Your task to perform on an android device: Go to CNN.com Image 0: 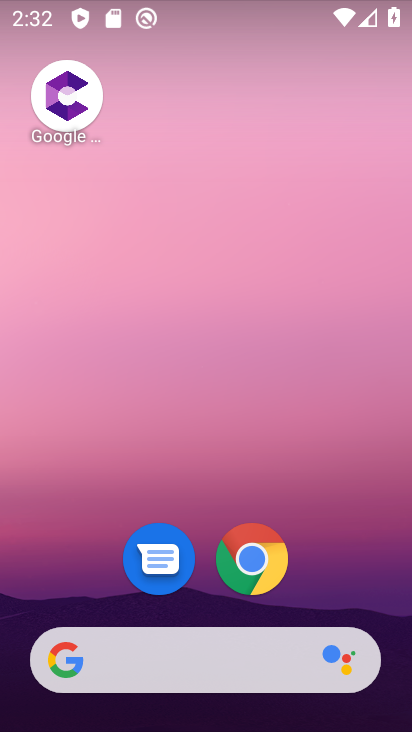
Step 0: click (254, 567)
Your task to perform on an android device: Go to CNN.com Image 1: 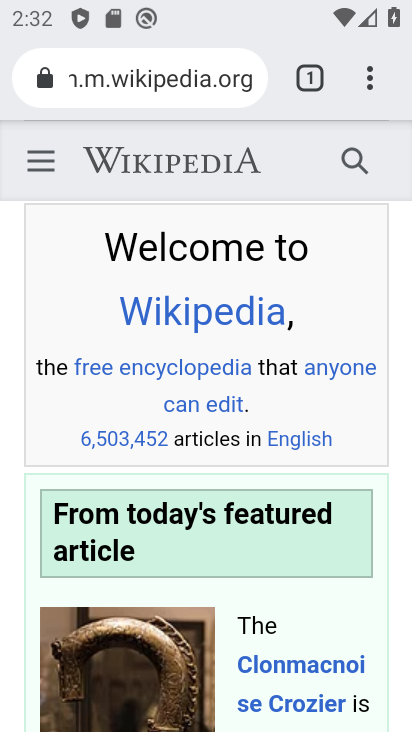
Step 1: click (369, 87)
Your task to perform on an android device: Go to CNN.com Image 2: 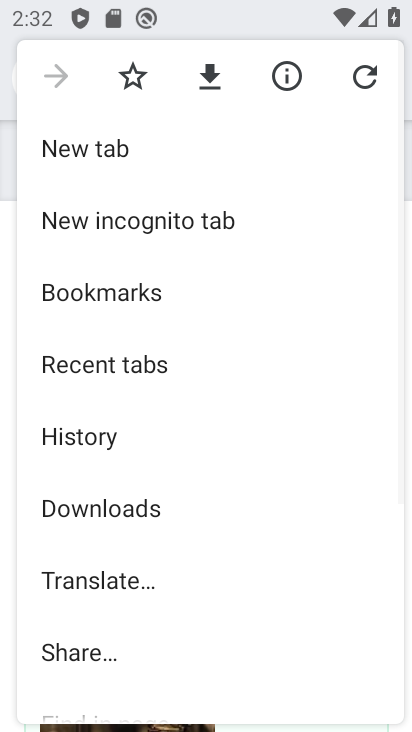
Step 2: click (84, 151)
Your task to perform on an android device: Go to CNN.com Image 3: 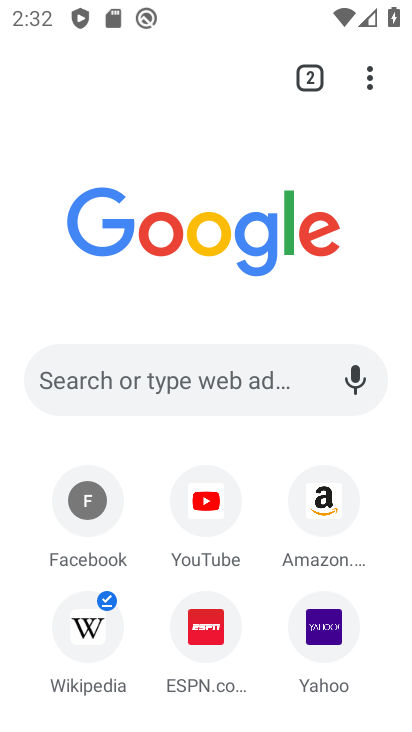
Step 3: click (199, 379)
Your task to perform on an android device: Go to CNN.com Image 4: 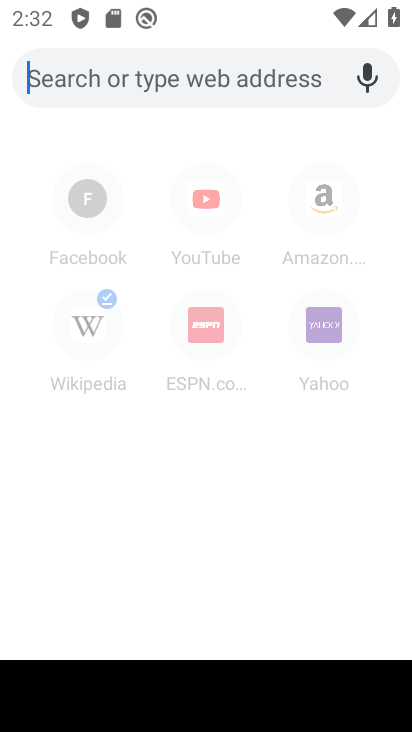
Step 4: type "CNN.com"
Your task to perform on an android device: Go to CNN.com Image 5: 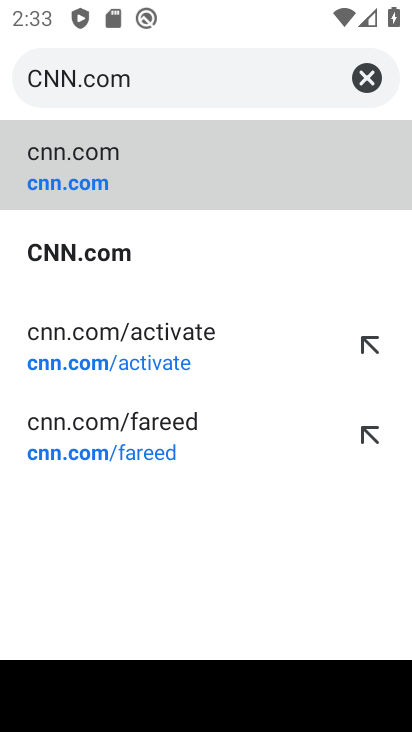
Step 5: click (86, 165)
Your task to perform on an android device: Go to CNN.com Image 6: 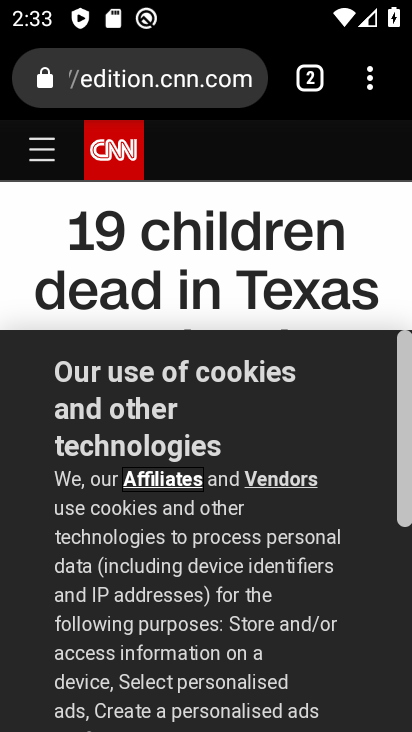
Step 6: task complete